Your task to perform on an android device: star an email in the gmail app Image 0: 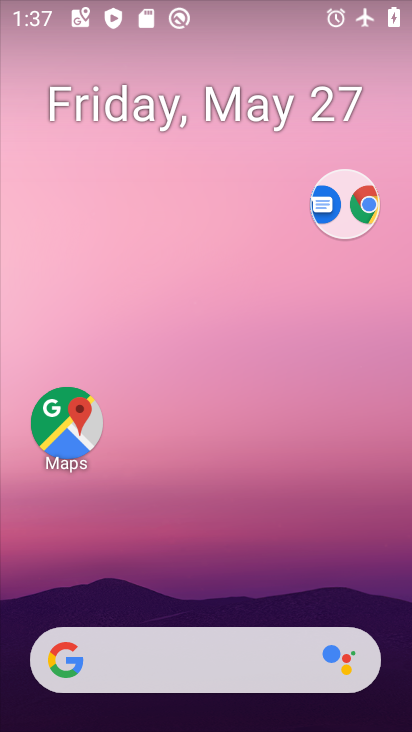
Step 0: drag from (254, 565) to (336, 15)
Your task to perform on an android device: star an email in the gmail app Image 1: 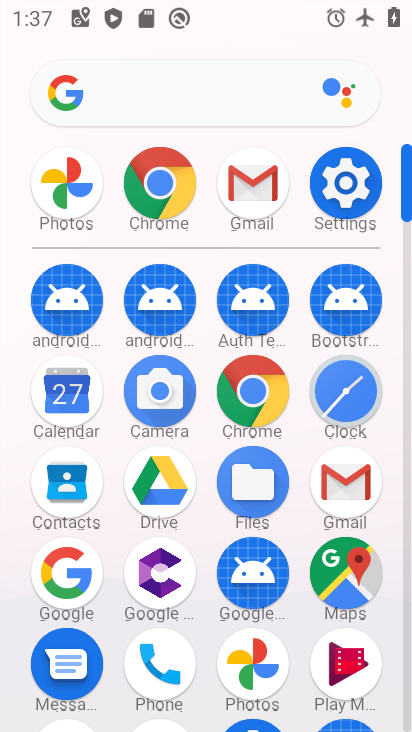
Step 1: click (344, 504)
Your task to perform on an android device: star an email in the gmail app Image 2: 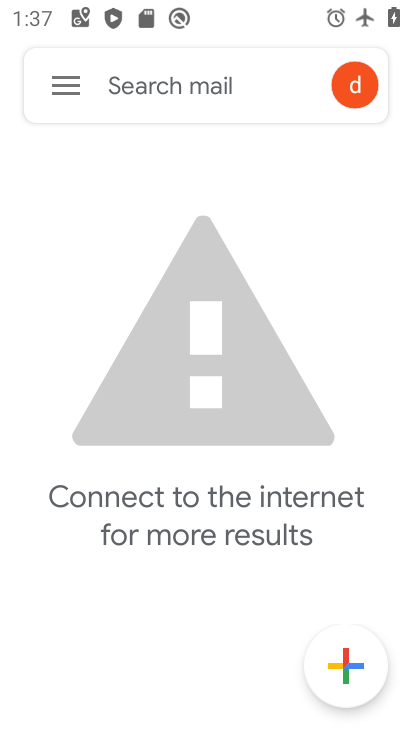
Step 2: click (63, 86)
Your task to perform on an android device: star an email in the gmail app Image 3: 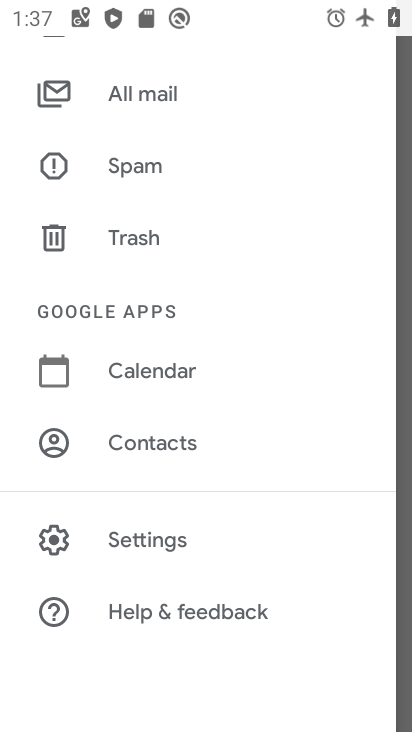
Step 3: drag from (181, 344) to (182, 510)
Your task to perform on an android device: star an email in the gmail app Image 4: 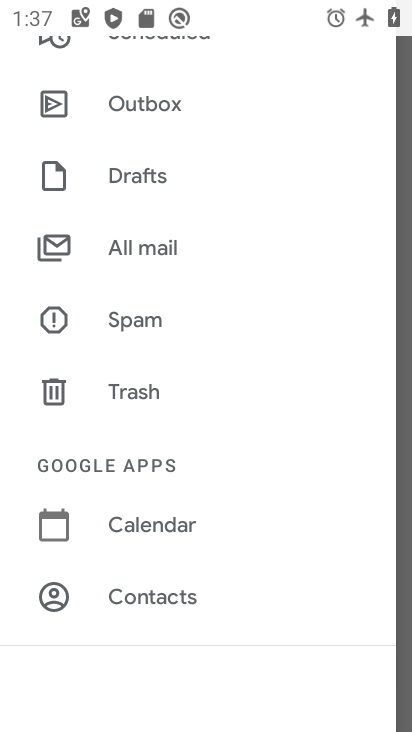
Step 4: drag from (210, 277) to (170, 486)
Your task to perform on an android device: star an email in the gmail app Image 5: 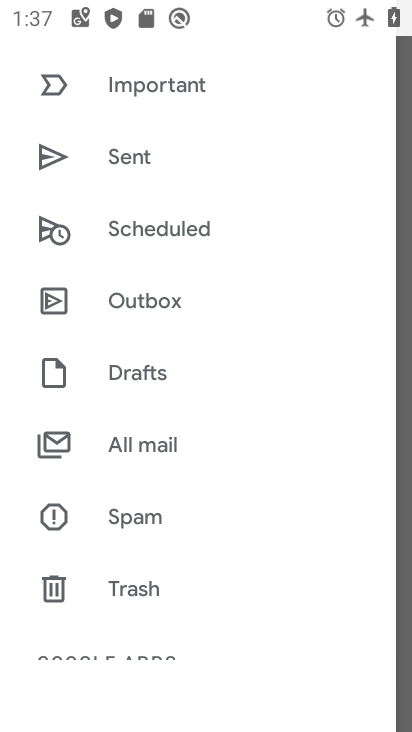
Step 5: drag from (180, 430) to (168, 581)
Your task to perform on an android device: star an email in the gmail app Image 6: 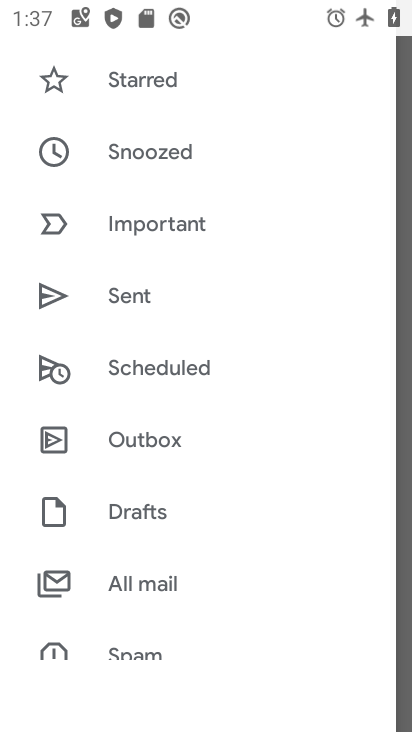
Step 6: drag from (152, 344) to (149, 528)
Your task to perform on an android device: star an email in the gmail app Image 7: 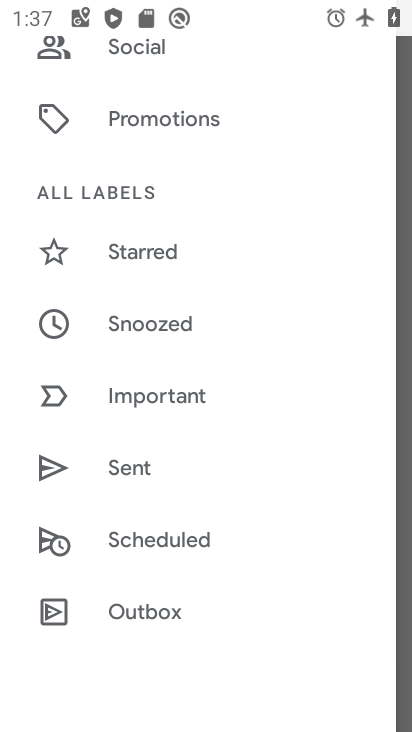
Step 7: drag from (162, 540) to (202, 266)
Your task to perform on an android device: star an email in the gmail app Image 8: 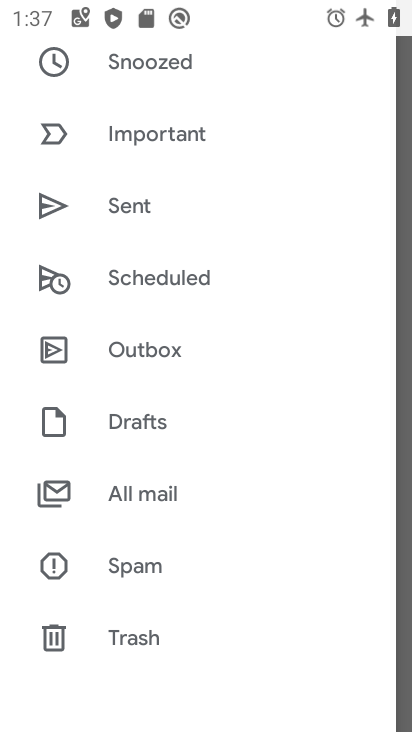
Step 8: click (162, 487)
Your task to perform on an android device: star an email in the gmail app Image 9: 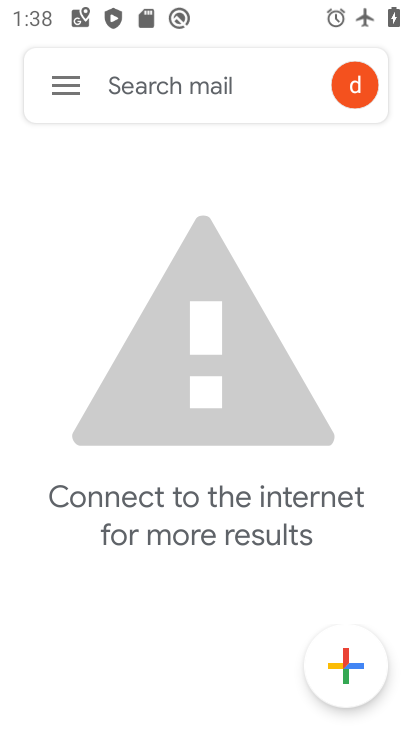
Step 9: click (75, 99)
Your task to perform on an android device: star an email in the gmail app Image 10: 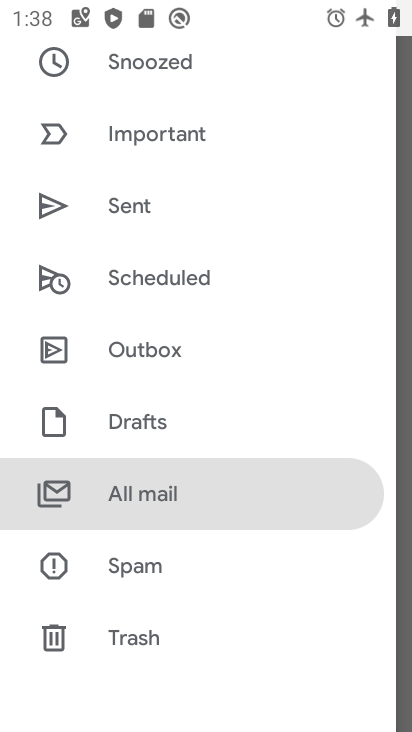
Step 10: task complete